Your task to perform on an android device: Go to internet settings Image 0: 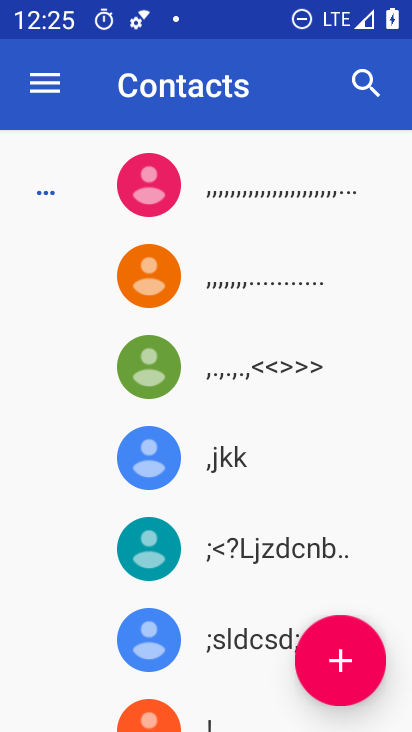
Step 0: press home button
Your task to perform on an android device: Go to internet settings Image 1: 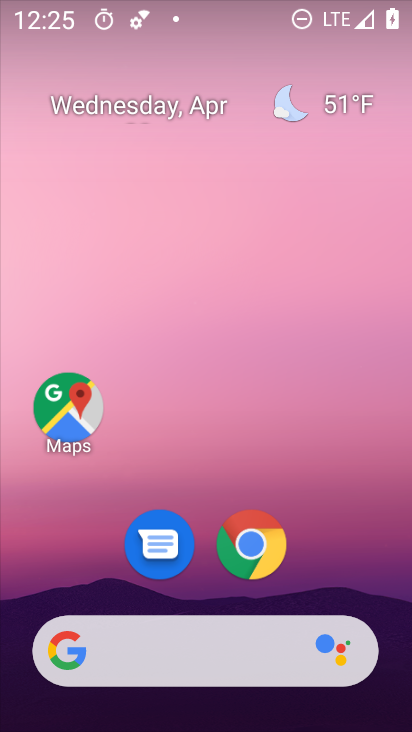
Step 1: drag from (351, 541) to (358, 96)
Your task to perform on an android device: Go to internet settings Image 2: 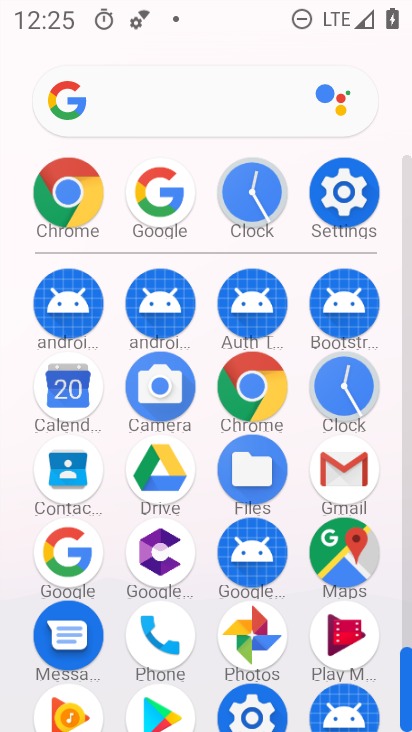
Step 2: click (338, 203)
Your task to perform on an android device: Go to internet settings Image 3: 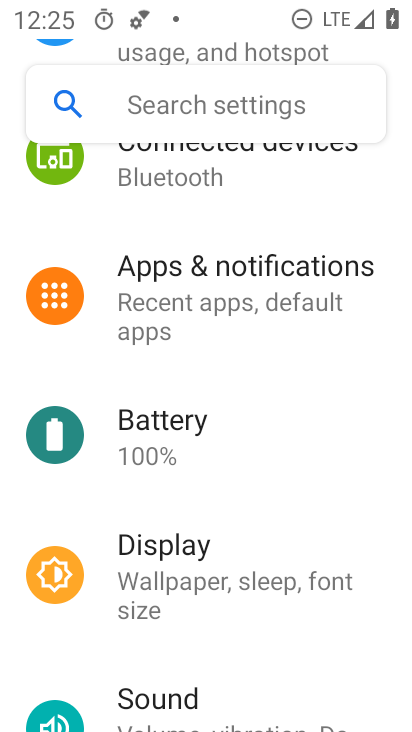
Step 3: drag from (381, 513) to (376, 377)
Your task to perform on an android device: Go to internet settings Image 4: 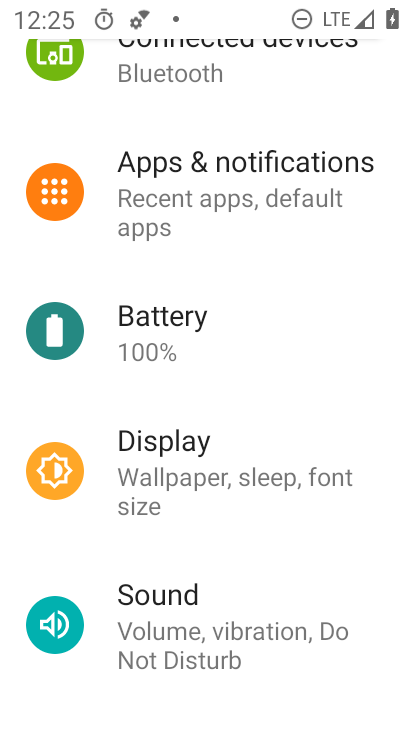
Step 4: drag from (362, 591) to (368, 429)
Your task to perform on an android device: Go to internet settings Image 5: 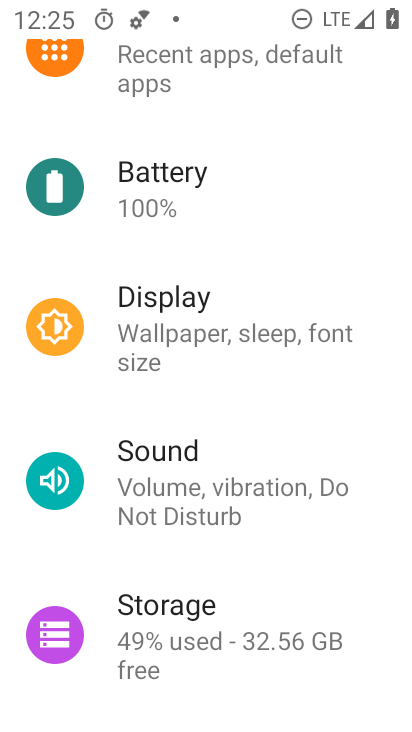
Step 5: drag from (368, 635) to (385, 417)
Your task to perform on an android device: Go to internet settings Image 6: 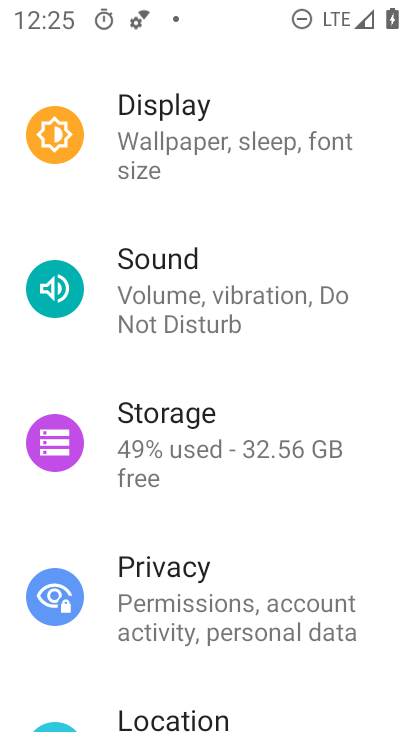
Step 6: drag from (377, 596) to (373, 450)
Your task to perform on an android device: Go to internet settings Image 7: 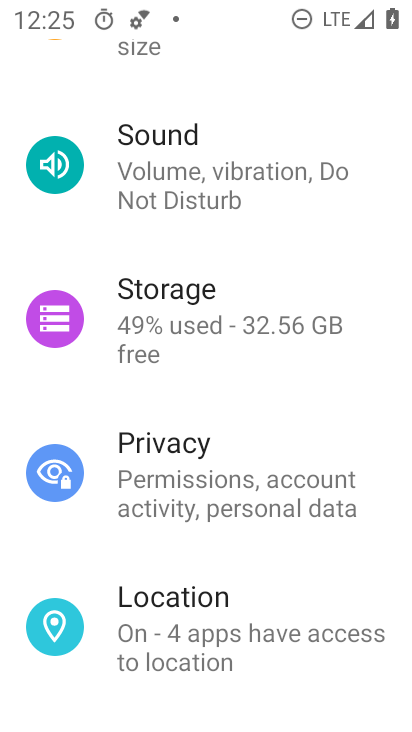
Step 7: drag from (370, 680) to (383, 498)
Your task to perform on an android device: Go to internet settings Image 8: 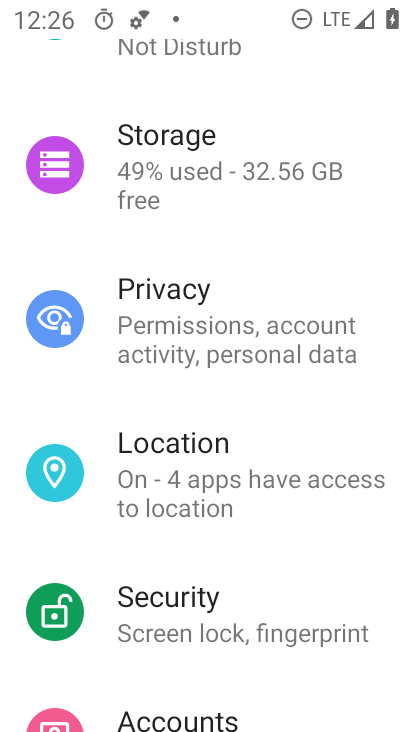
Step 8: drag from (369, 681) to (384, 456)
Your task to perform on an android device: Go to internet settings Image 9: 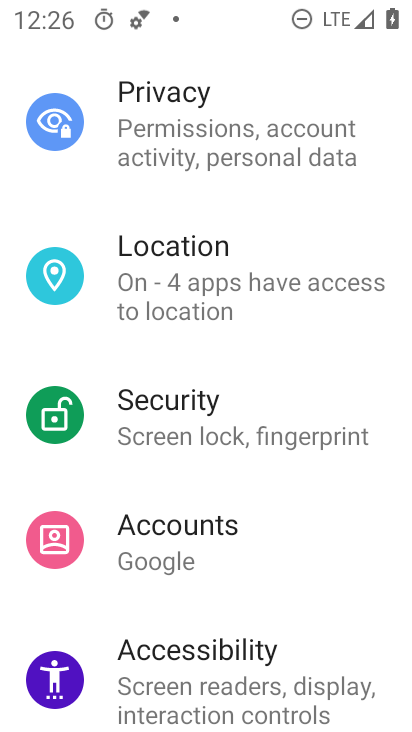
Step 9: drag from (356, 634) to (350, 398)
Your task to perform on an android device: Go to internet settings Image 10: 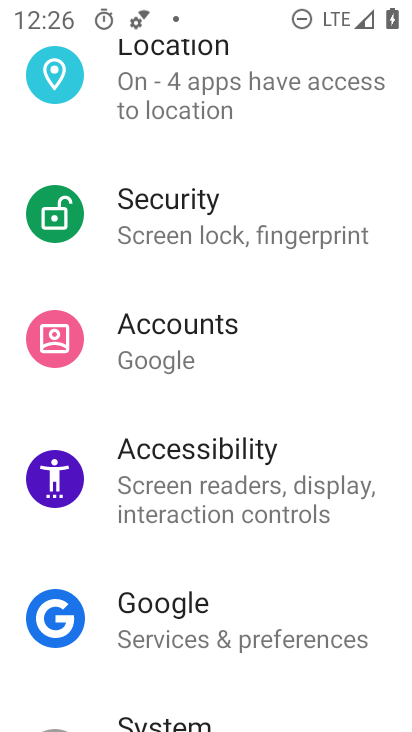
Step 10: drag from (382, 566) to (382, 350)
Your task to perform on an android device: Go to internet settings Image 11: 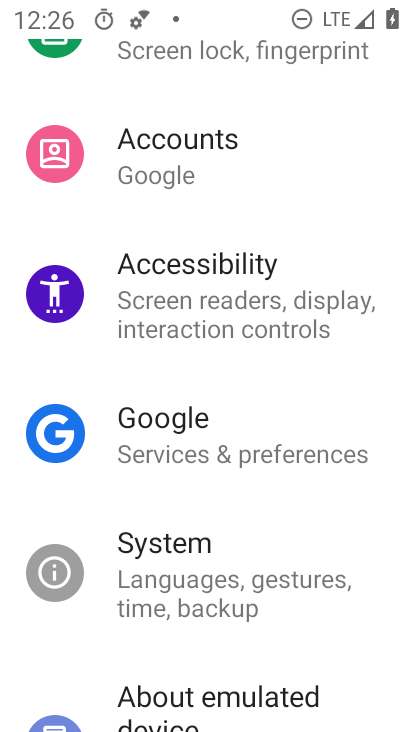
Step 11: drag from (372, 629) to (375, 452)
Your task to perform on an android device: Go to internet settings Image 12: 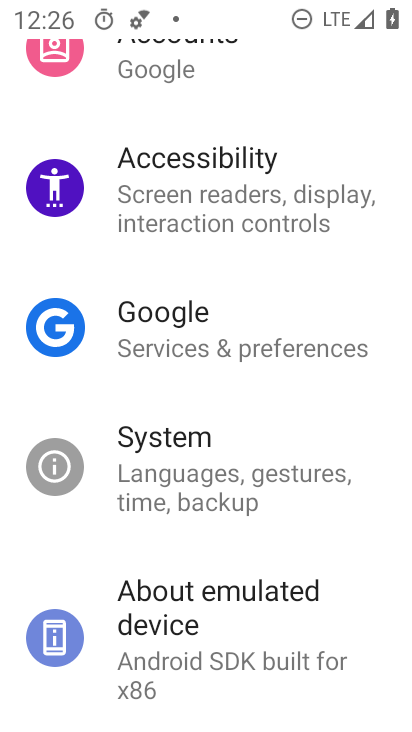
Step 12: drag from (375, 275) to (367, 457)
Your task to perform on an android device: Go to internet settings Image 13: 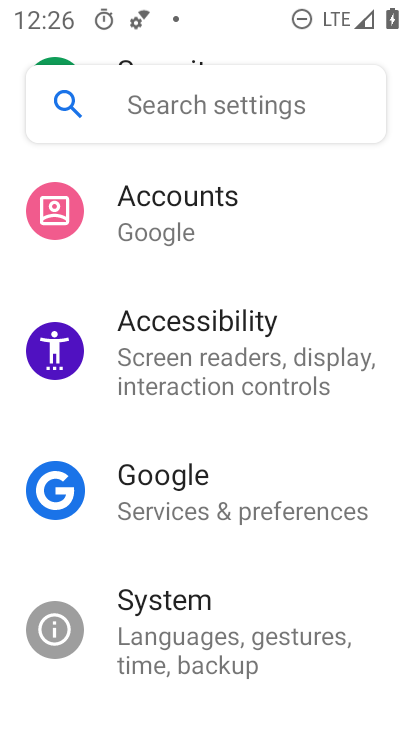
Step 13: drag from (380, 271) to (382, 447)
Your task to perform on an android device: Go to internet settings Image 14: 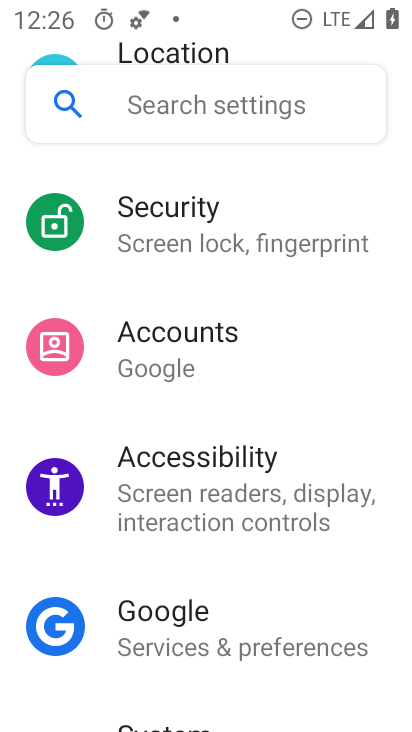
Step 14: drag from (398, 253) to (396, 419)
Your task to perform on an android device: Go to internet settings Image 15: 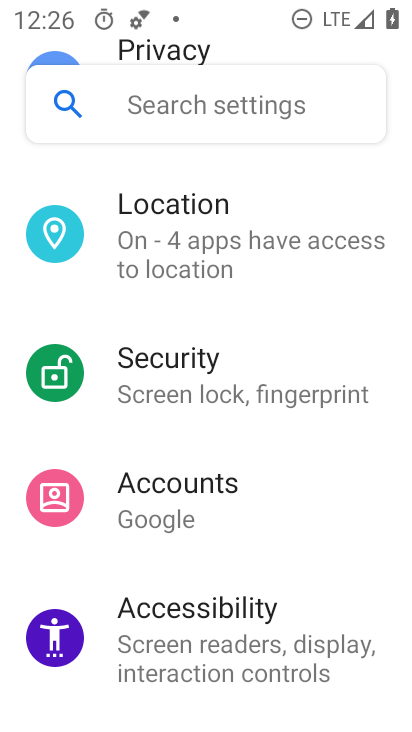
Step 15: drag from (394, 203) to (389, 376)
Your task to perform on an android device: Go to internet settings Image 16: 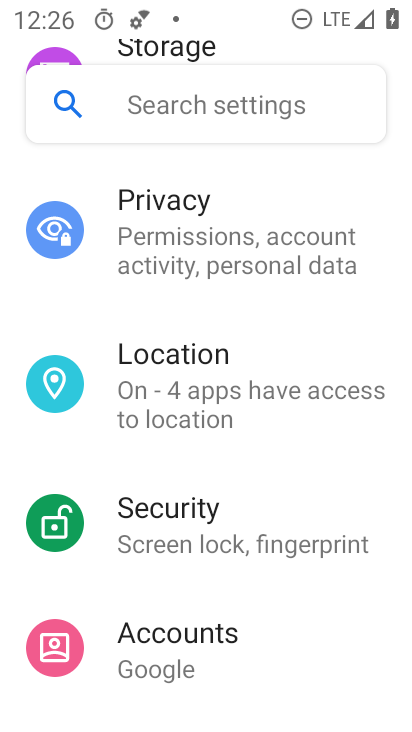
Step 16: drag from (382, 238) to (376, 389)
Your task to perform on an android device: Go to internet settings Image 17: 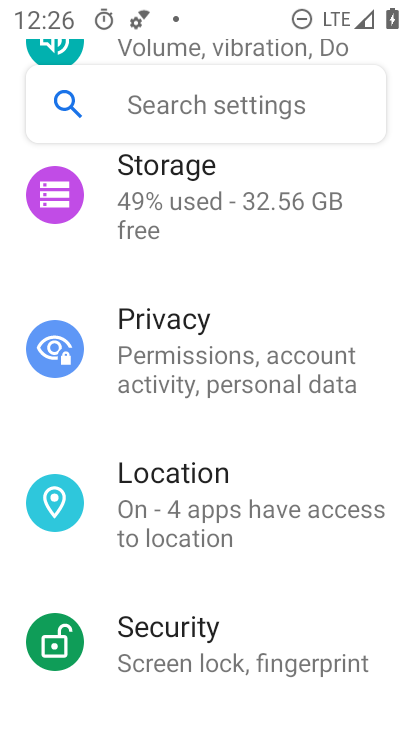
Step 17: drag from (386, 192) to (377, 407)
Your task to perform on an android device: Go to internet settings Image 18: 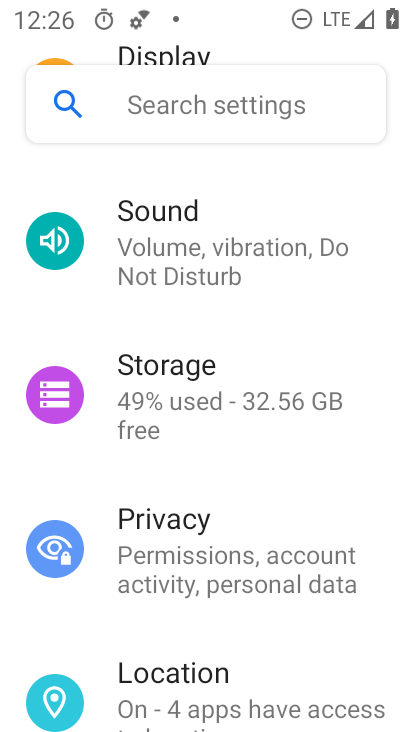
Step 18: drag from (381, 213) to (373, 406)
Your task to perform on an android device: Go to internet settings Image 19: 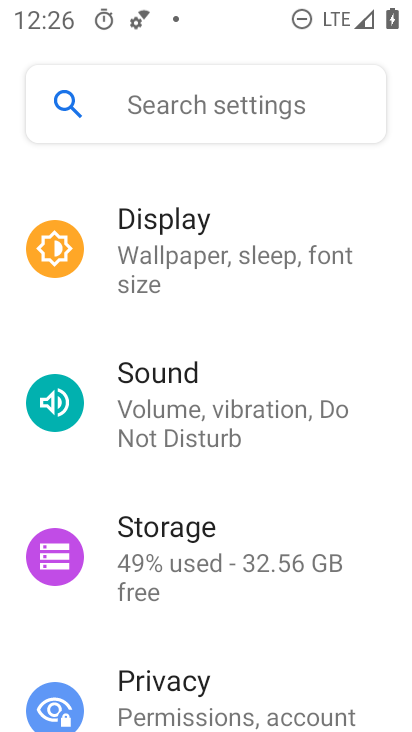
Step 19: drag from (382, 219) to (385, 389)
Your task to perform on an android device: Go to internet settings Image 20: 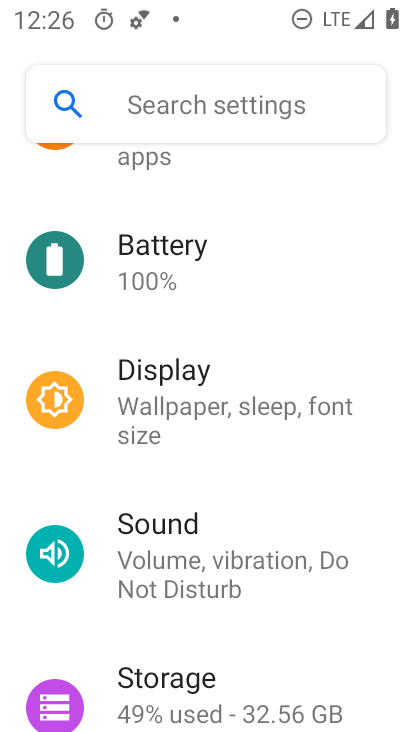
Step 20: drag from (385, 192) to (382, 403)
Your task to perform on an android device: Go to internet settings Image 21: 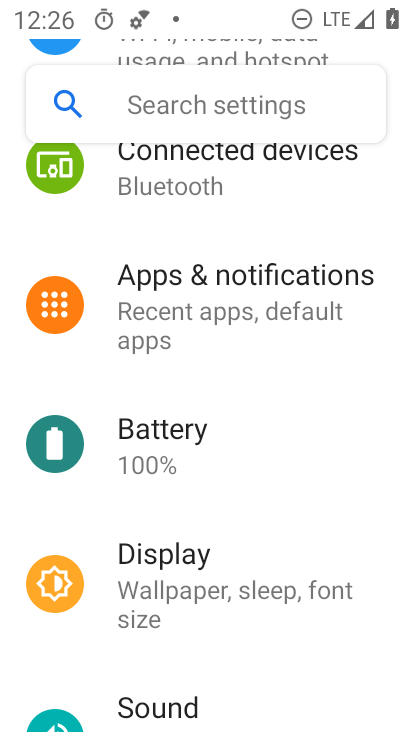
Step 21: drag from (391, 208) to (366, 415)
Your task to perform on an android device: Go to internet settings Image 22: 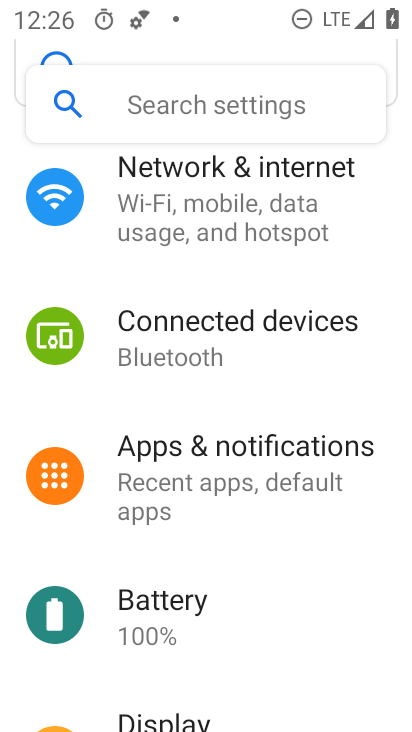
Step 22: click (261, 186)
Your task to perform on an android device: Go to internet settings Image 23: 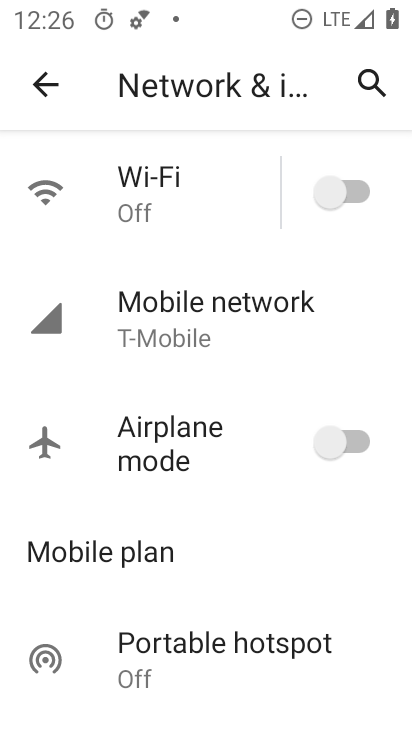
Step 23: task complete